Your task to perform on an android device: Open accessibility settings Image 0: 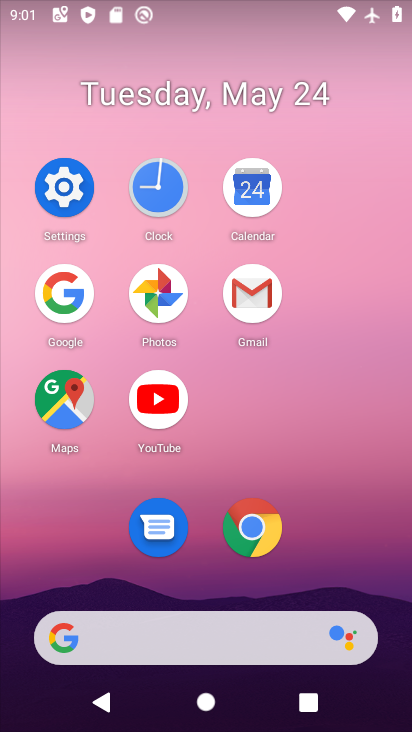
Step 0: click (57, 213)
Your task to perform on an android device: Open accessibility settings Image 1: 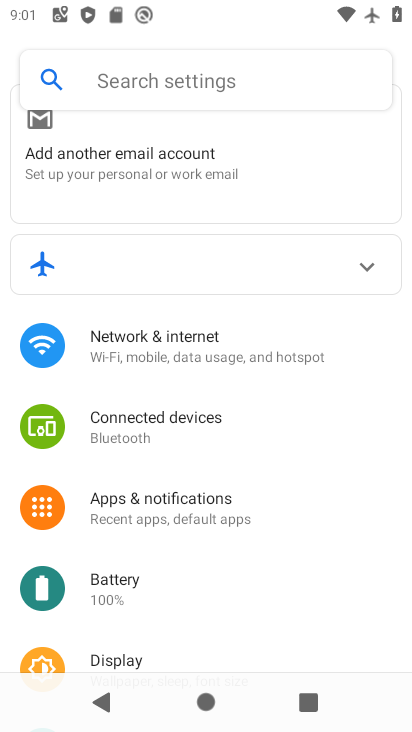
Step 1: drag from (298, 579) to (369, 134)
Your task to perform on an android device: Open accessibility settings Image 2: 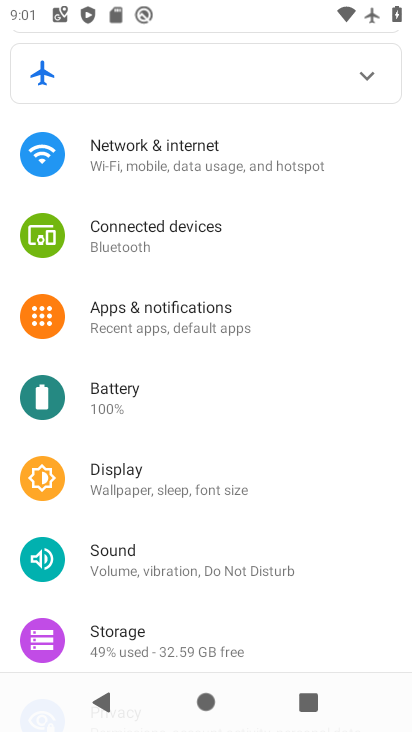
Step 2: drag from (295, 598) to (279, 222)
Your task to perform on an android device: Open accessibility settings Image 3: 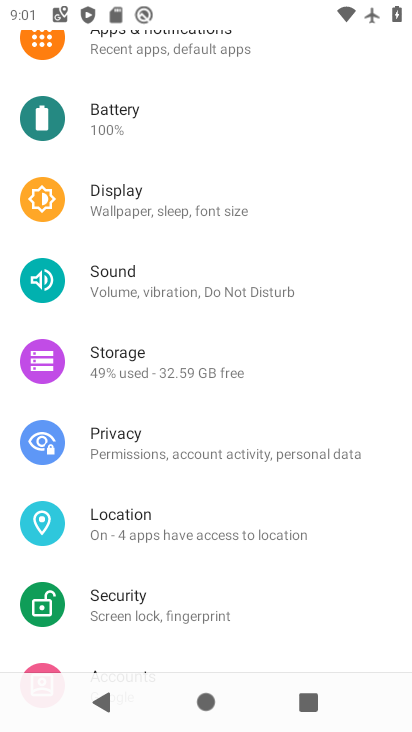
Step 3: drag from (214, 597) to (185, 255)
Your task to perform on an android device: Open accessibility settings Image 4: 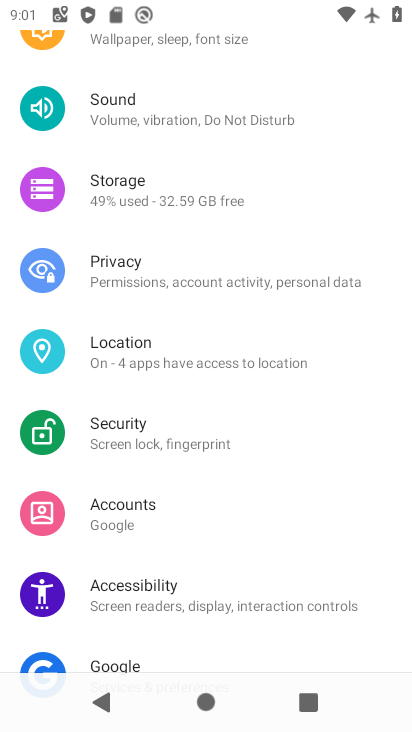
Step 4: click (182, 603)
Your task to perform on an android device: Open accessibility settings Image 5: 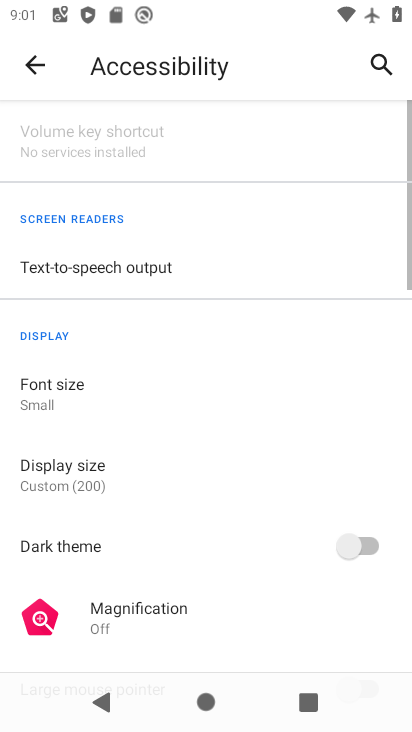
Step 5: task complete